Your task to perform on an android device: find which apps use the phone's location Image 0: 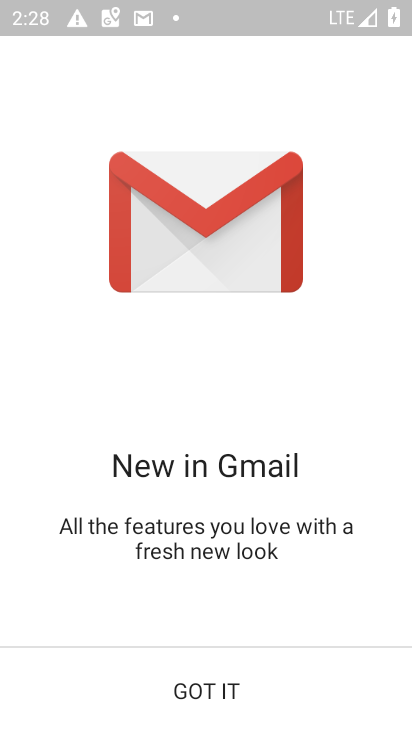
Step 0: press home button
Your task to perform on an android device: find which apps use the phone's location Image 1: 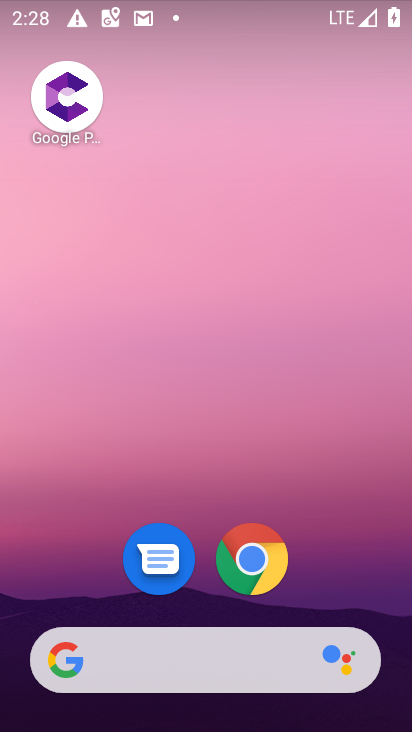
Step 1: drag from (379, 602) to (335, 130)
Your task to perform on an android device: find which apps use the phone's location Image 2: 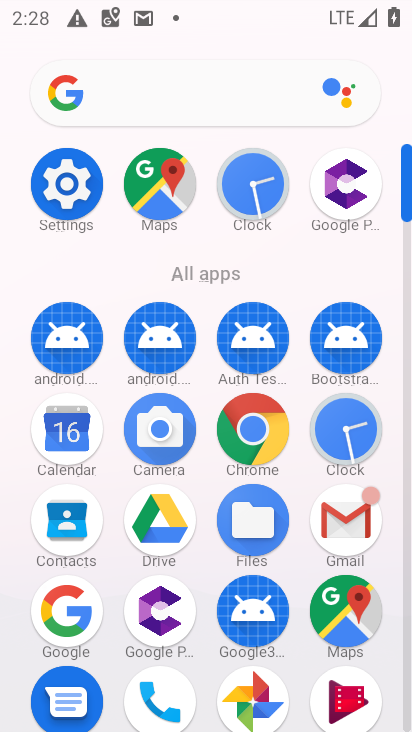
Step 2: click (409, 709)
Your task to perform on an android device: find which apps use the phone's location Image 3: 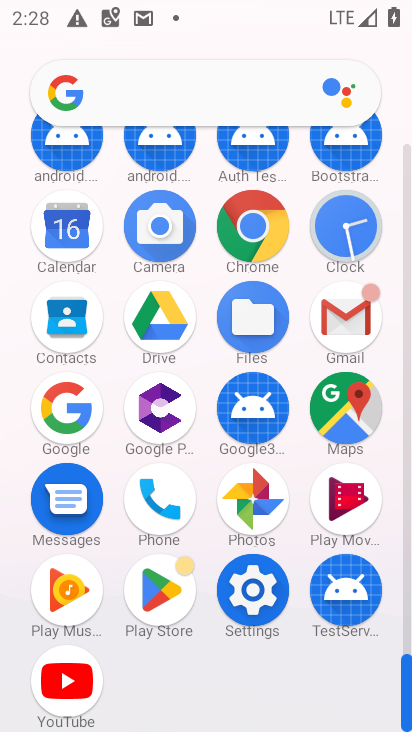
Step 3: click (251, 587)
Your task to perform on an android device: find which apps use the phone's location Image 4: 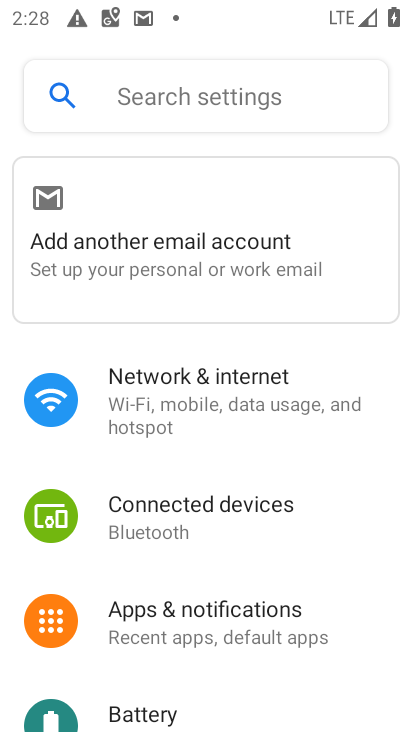
Step 4: drag from (342, 658) to (326, 213)
Your task to perform on an android device: find which apps use the phone's location Image 5: 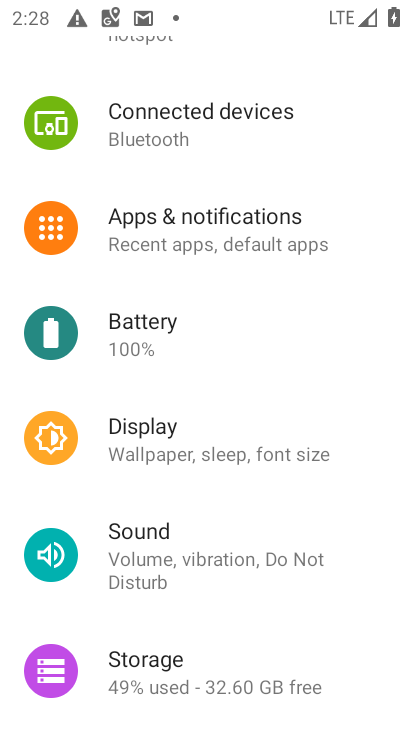
Step 5: drag from (321, 644) to (294, 202)
Your task to perform on an android device: find which apps use the phone's location Image 6: 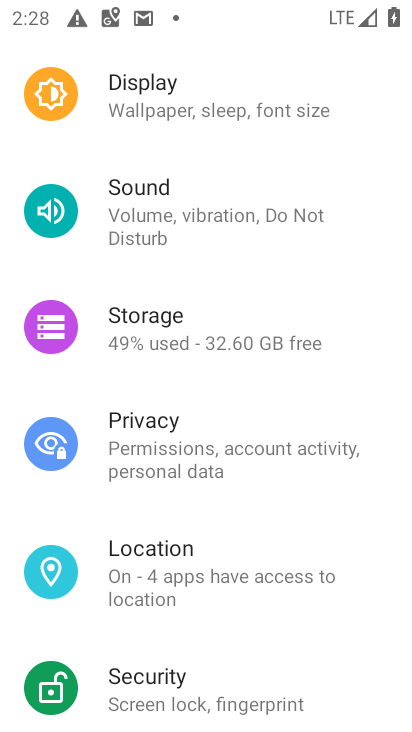
Step 6: click (167, 556)
Your task to perform on an android device: find which apps use the phone's location Image 7: 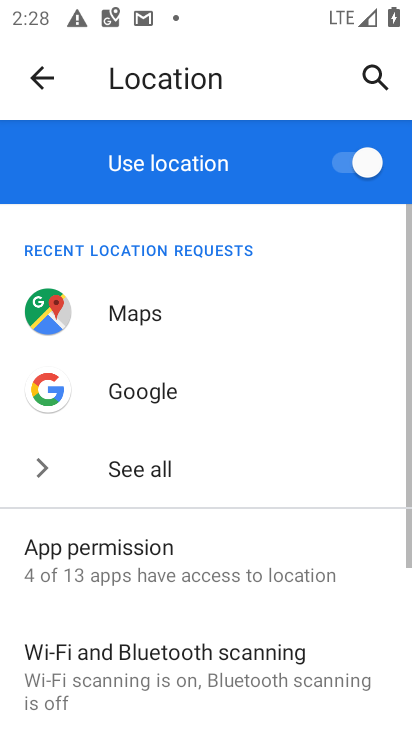
Step 7: drag from (321, 630) to (294, 192)
Your task to perform on an android device: find which apps use the phone's location Image 8: 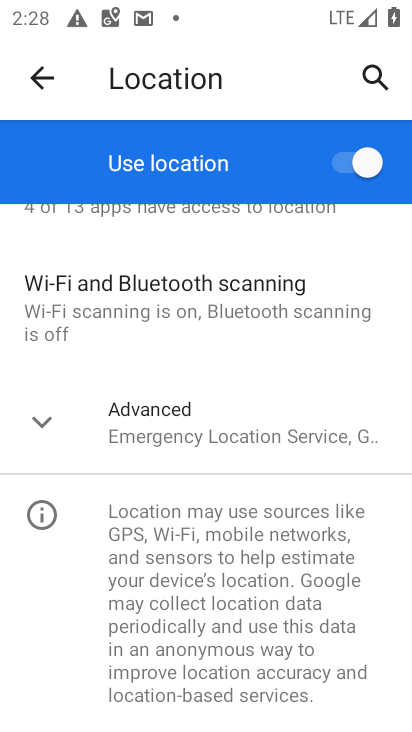
Step 8: drag from (251, 324) to (235, 611)
Your task to perform on an android device: find which apps use the phone's location Image 9: 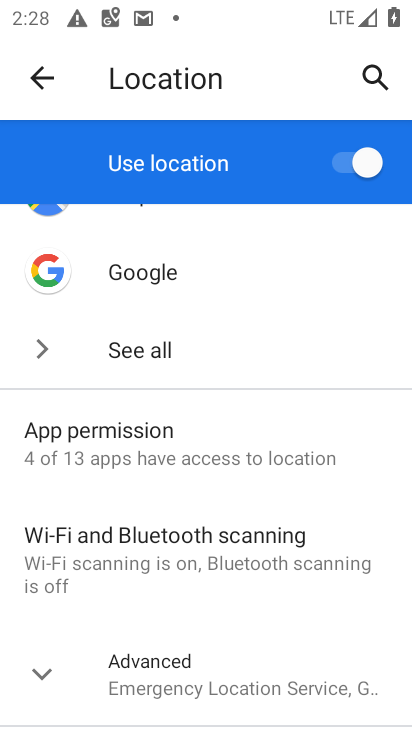
Step 9: click (77, 435)
Your task to perform on an android device: find which apps use the phone's location Image 10: 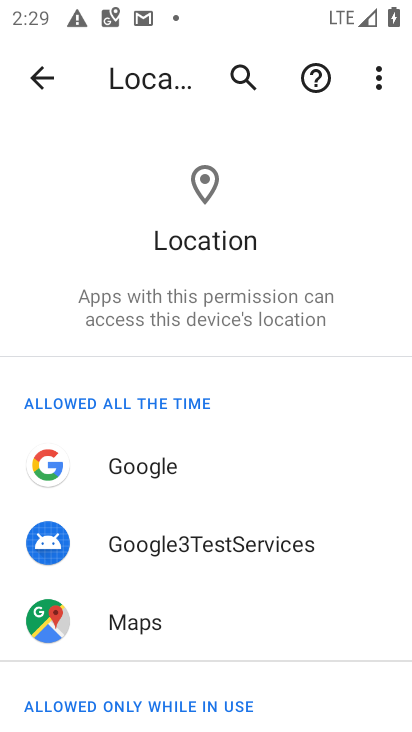
Step 10: task complete